Your task to perform on an android device: find snoozed emails in the gmail app Image 0: 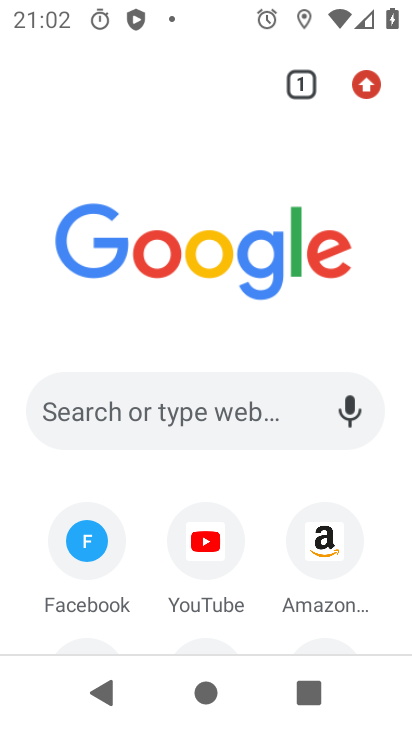
Step 0: press home button
Your task to perform on an android device: find snoozed emails in the gmail app Image 1: 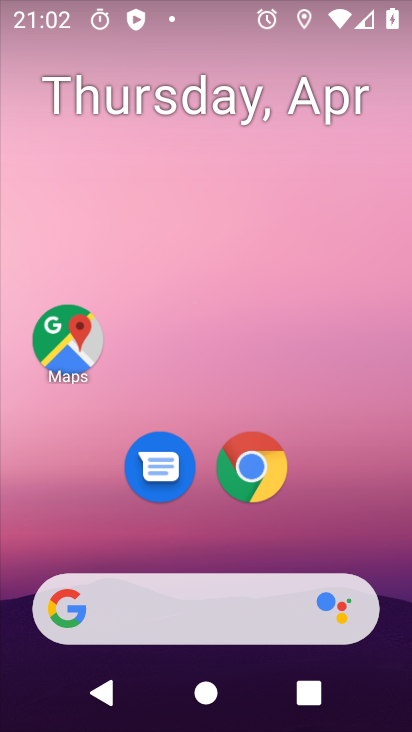
Step 1: drag from (215, 555) to (199, 14)
Your task to perform on an android device: find snoozed emails in the gmail app Image 2: 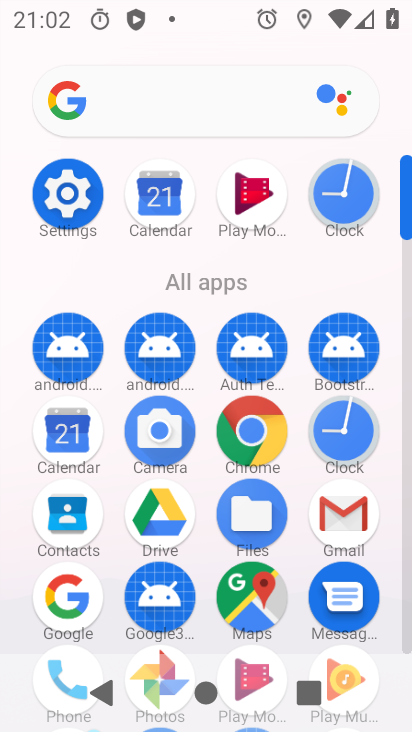
Step 2: click (347, 529)
Your task to perform on an android device: find snoozed emails in the gmail app Image 3: 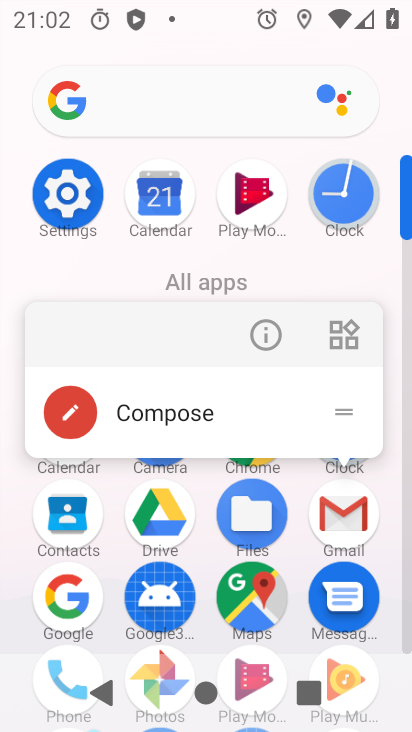
Step 3: click (350, 503)
Your task to perform on an android device: find snoozed emails in the gmail app Image 4: 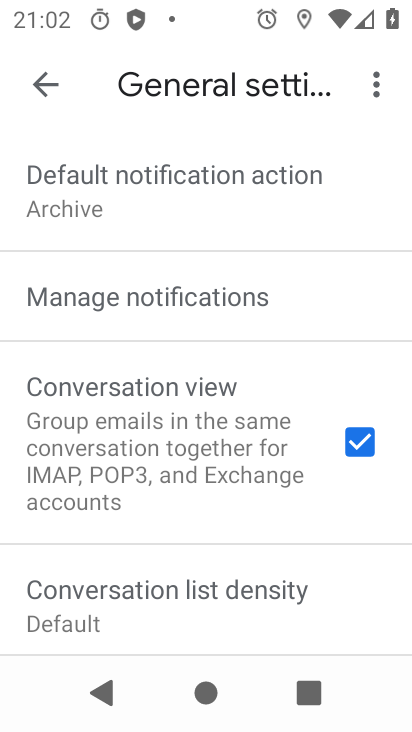
Step 4: click (38, 75)
Your task to perform on an android device: find snoozed emails in the gmail app Image 5: 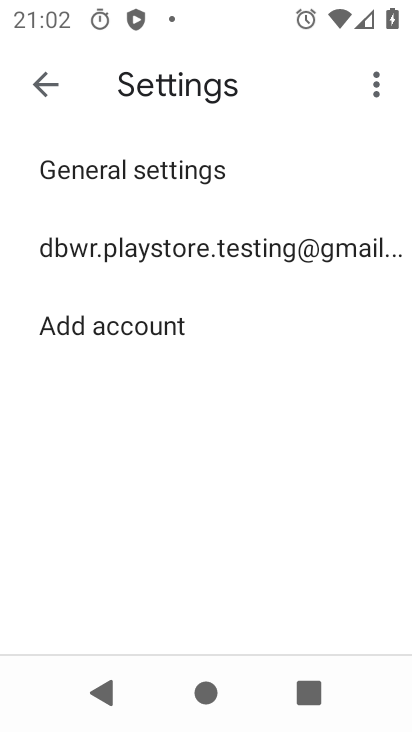
Step 5: click (38, 75)
Your task to perform on an android device: find snoozed emails in the gmail app Image 6: 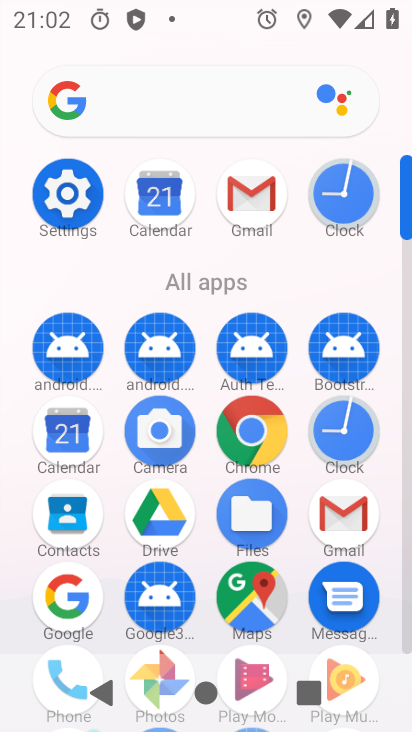
Step 6: click (249, 176)
Your task to perform on an android device: find snoozed emails in the gmail app Image 7: 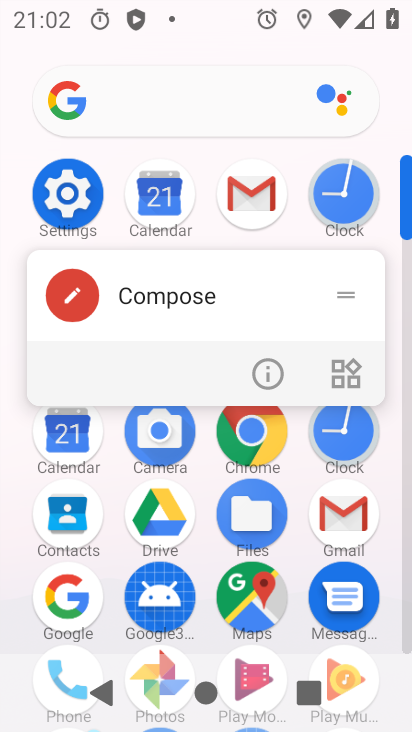
Step 7: click (258, 192)
Your task to perform on an android device: find snoozed emails in the gmail app Image 8: 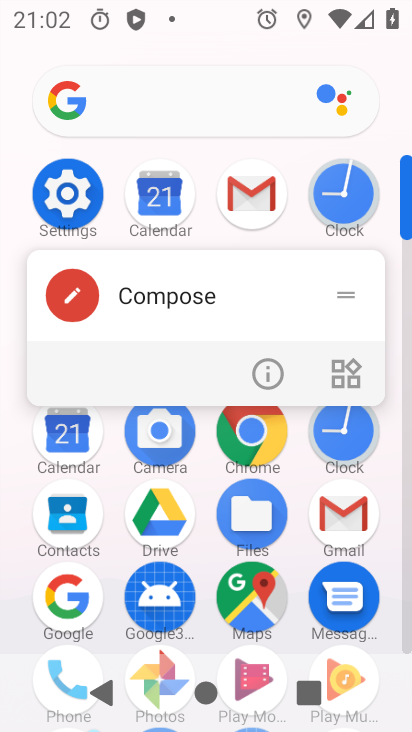
Step 8: click (258, 200)
Your task to perform on an android device: find snoozed emails in the gmail app Image 9: 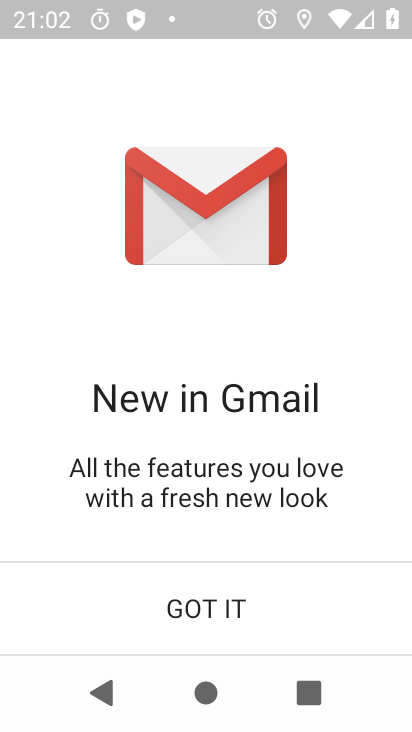
Step 9: click (179, 593)
Your task to perform on an android device: find snoozed emails in the gmail app Image 10: 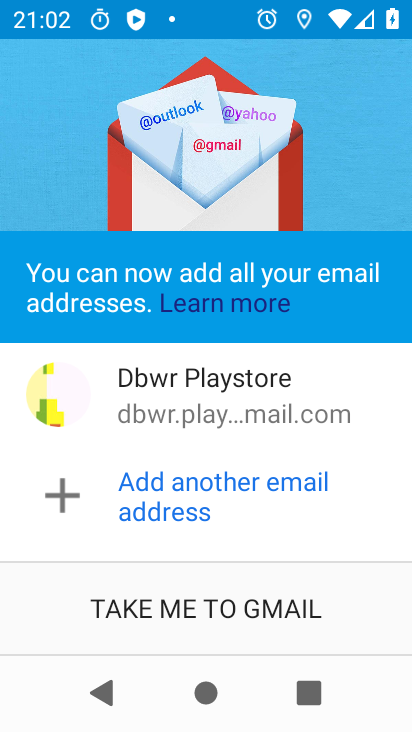
Step 10: click (176, 588)
Your task to perform on an android device: find snoozed emails in the gmail app Image 11: 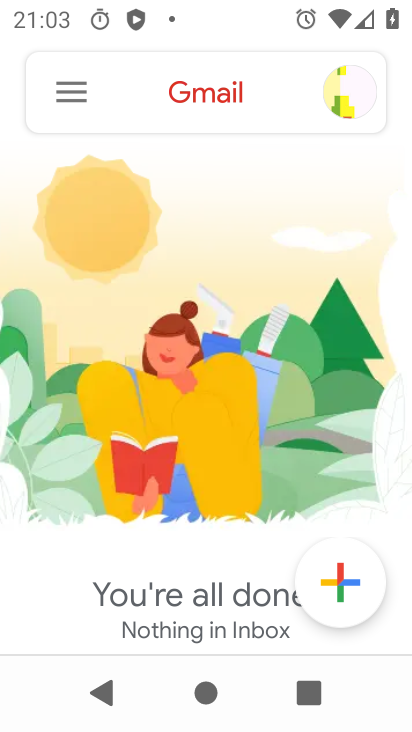
Step 11: click (60, 99)
Your task to perform on an android device: find snoozed emails in the gmail app Image 12: 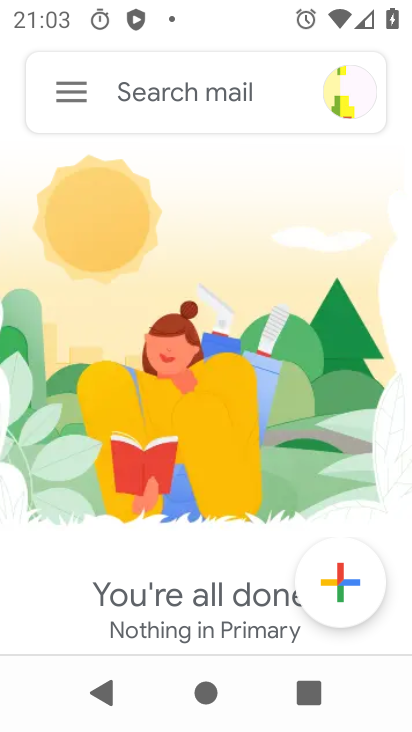
Step 12: click (72, 104)
Your task to perform on an android device: find snoozed emails in the gmail app Image 13: 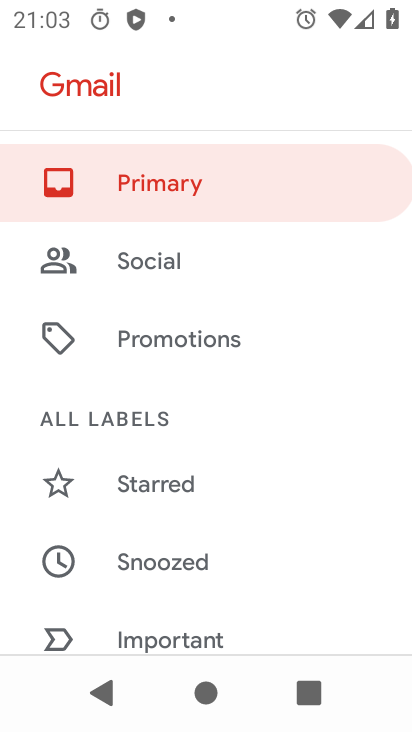
Step 13: click (121, 559)
Your task to perform on an android device: find snoozed emails in the gmail app Image 14: 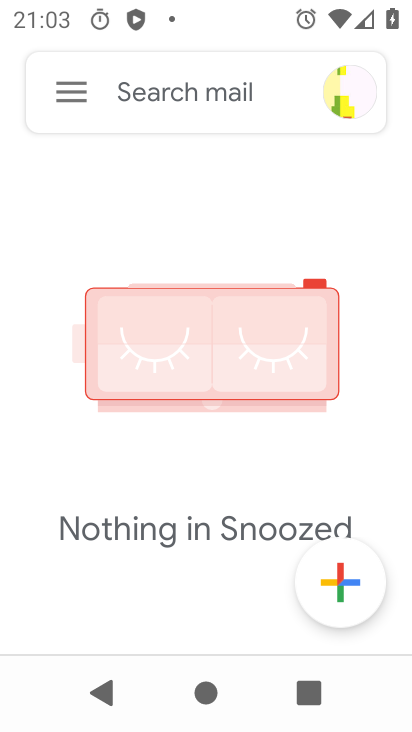
Step 14: task complete